Your task to perform on an android device: Go to sound settings Image 0: 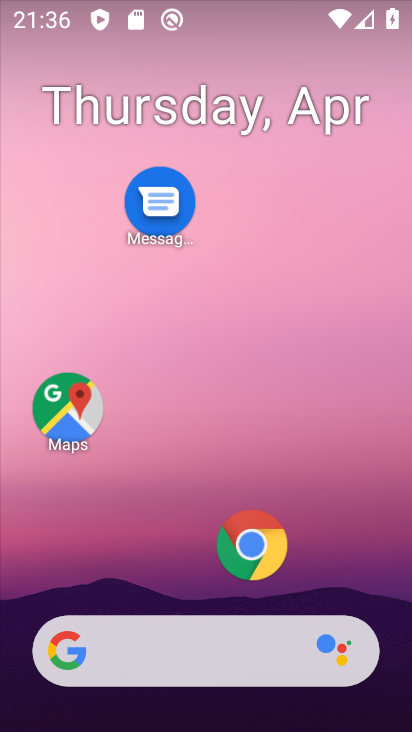
Step 0: drag from (209, 600) to (266, 100)
Your task to perform on an android device: Go to sound settings Image 1: 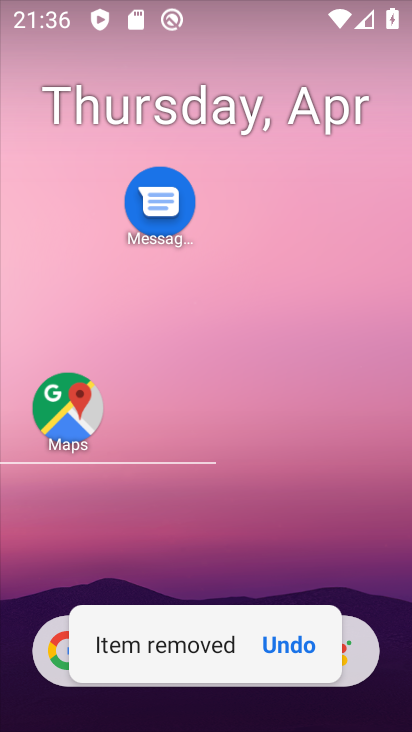
Step 1: click (181, 584)
Your task to perform on an android device: Go to sound settings Image 2: 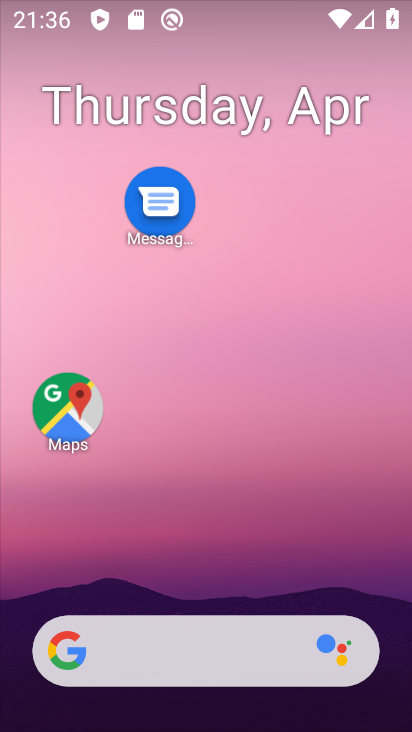
Step 2: drag from (198, 546) to (198, 120)
Your task to perform on an android device: Go to sound settings Image 3: 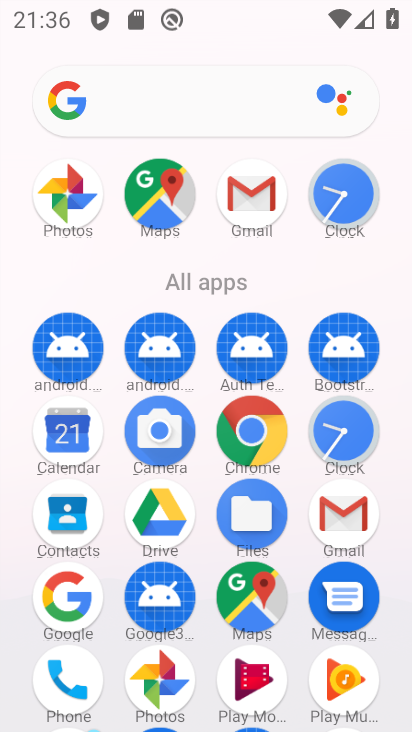
Step 3: drag from (112, 592) to (133, 254)
Your task to perform on an android device: Go to sound settings Image 4: 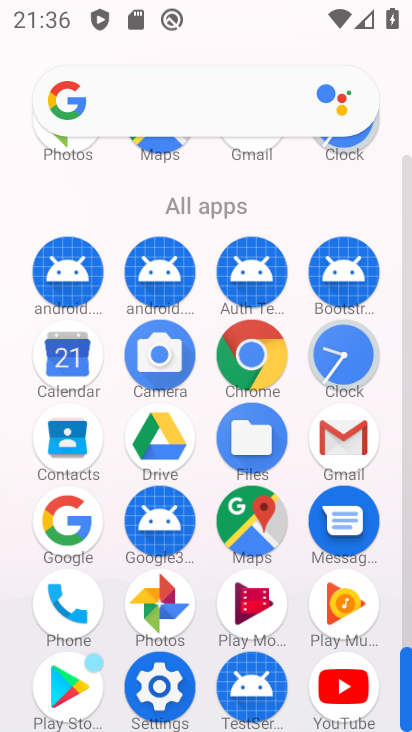
Step 4: click (175, 672)
Your task to perform on an android device: Go to sound settings Image 5: 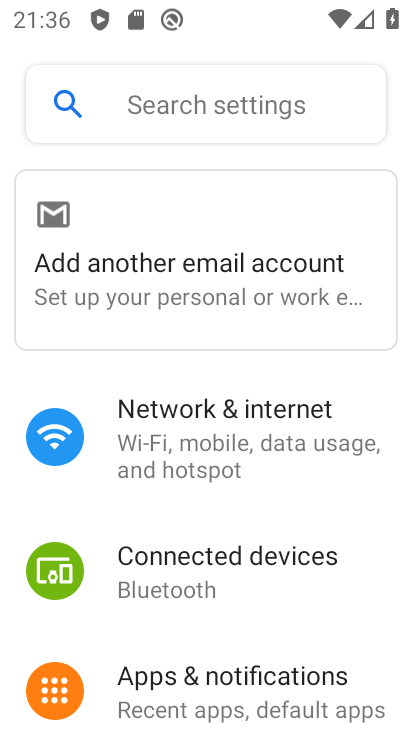
Step 5: drag from (213, 631) to (233, 145)
Your task to perform on an android device: Go to sound settings Image 6: 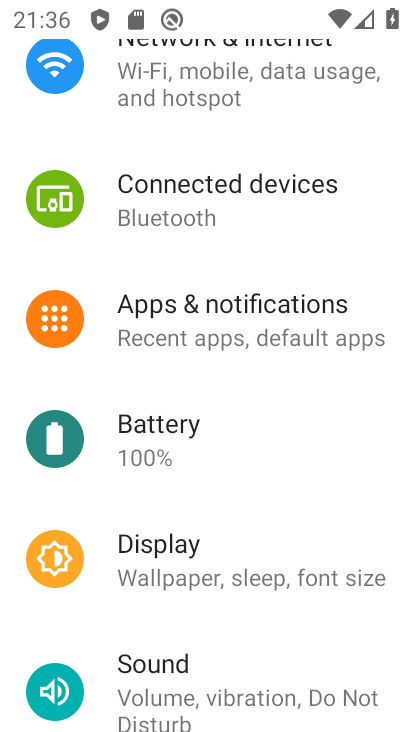
Step 6: click (191, 665)
Your task to perform on an android device: Go to sound settings Image 7: 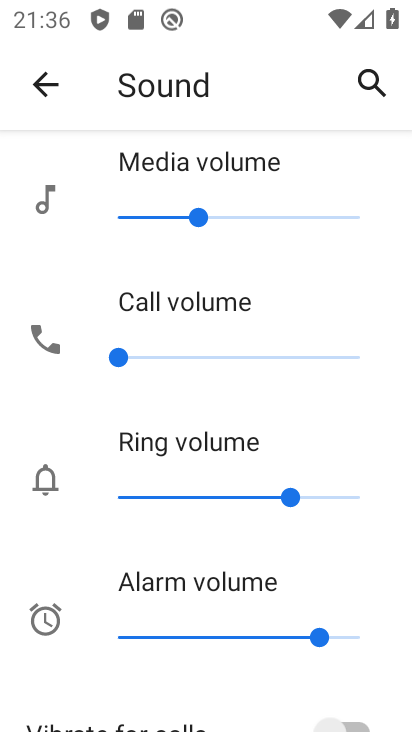
Step 7: task complete